Your task to perform on an android device: check storage Image 0: 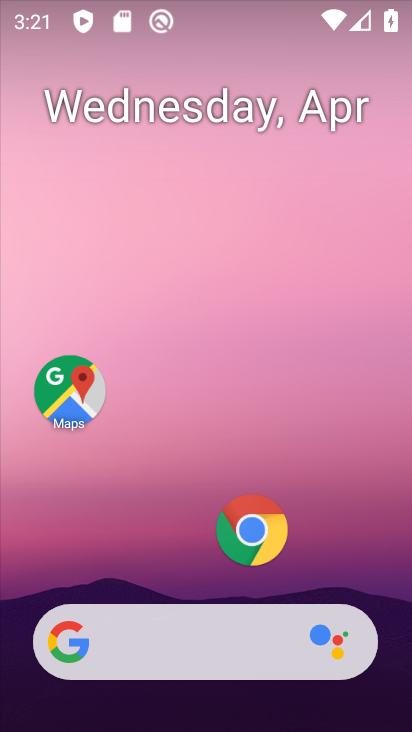
Step 0: drag from (173, 573) to (242, 72)
Your task to perform on an android device: check storage Image 1: 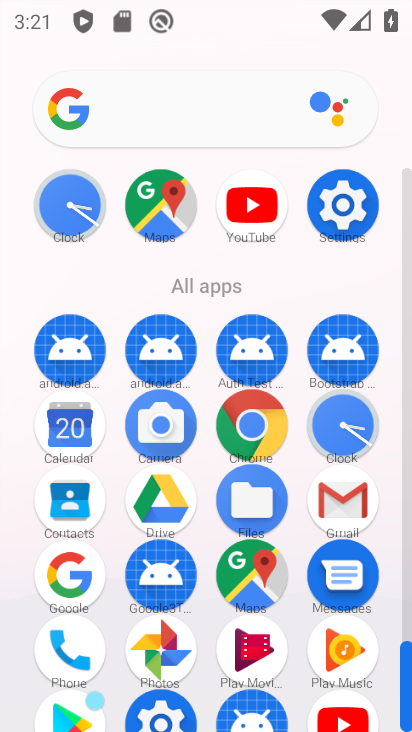
Step 1: click (341, 193)
Your task to perform on an android device: check storage Image 2: 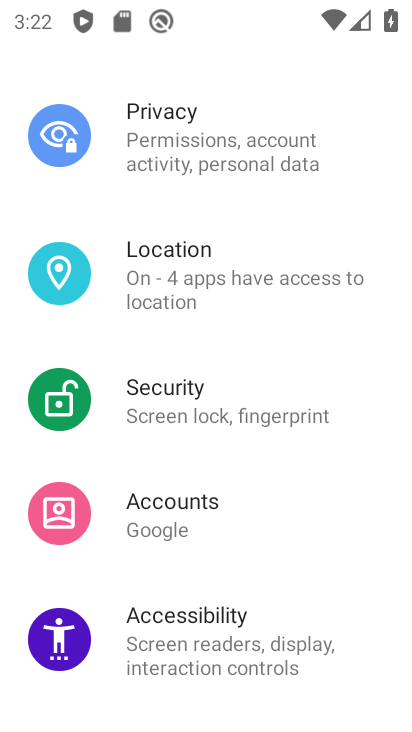
Step 2: drag from (217, 610) to (317, 121)
Your task to perform on an android device: check storage Image 3: 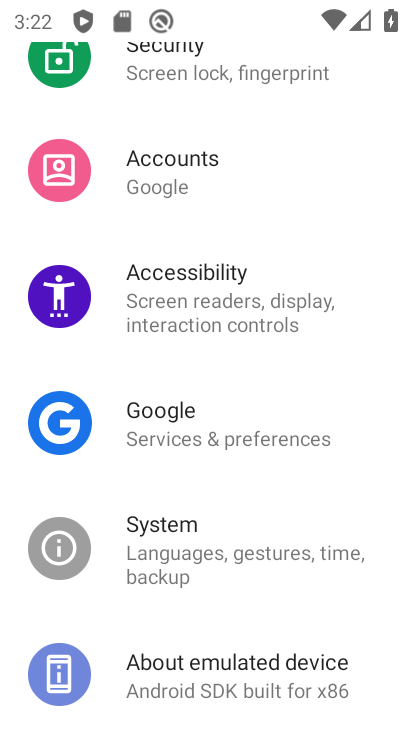
Step 3: drag from (207, 599) to (332, 132)
Your task to perform on an android device: check storage Image 4: 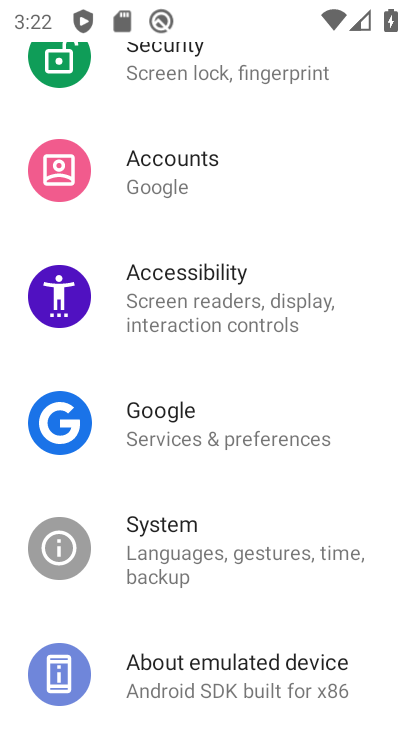
Step 4: drag from (236, 201) to (237, 696)
Your task to perform on an android device: check storage Image 5: 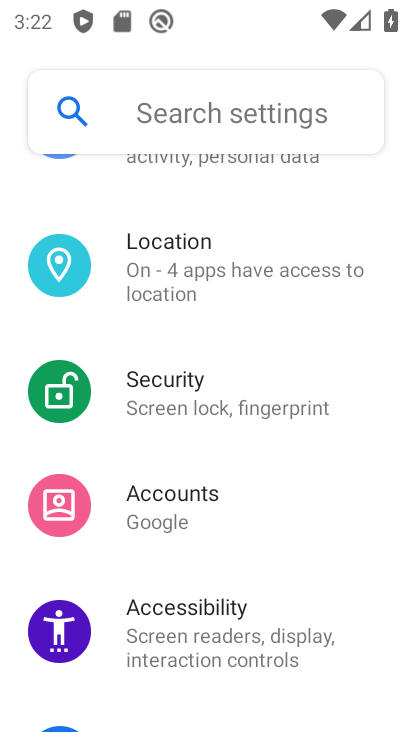
Step 5: drag from (202, 602) to (202, 722)
Your task to perform on an android device: check storage Image 6: 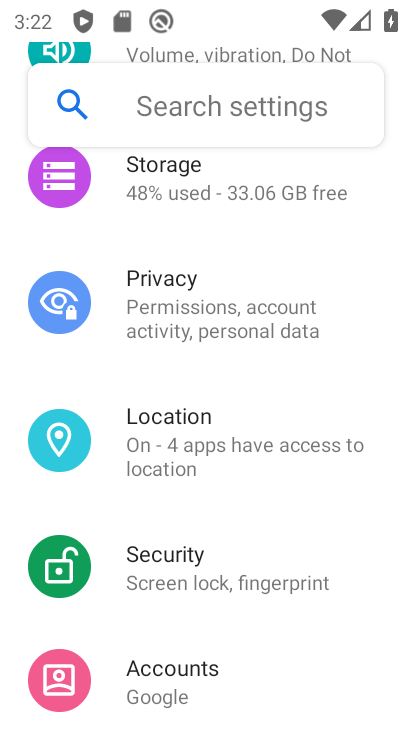
Step 6: click (184, 186)
Your task to perform on an android device: check storage Image 7: 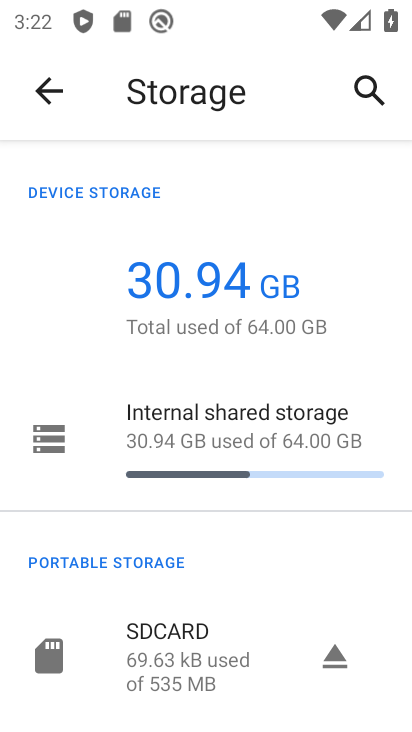
Step 7: task complete